Your task to perform on an android device: turn pop-ups on in chrome Image 0: 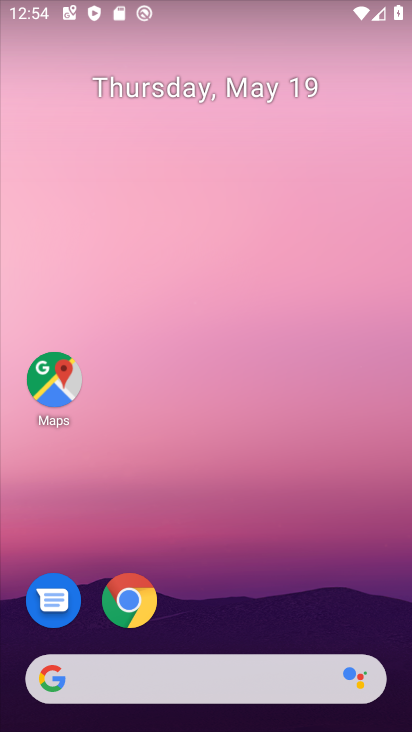
Step 0: click (126, 621)
Your task to perform on an android device: turn pop-ups on in chrome Image 1: 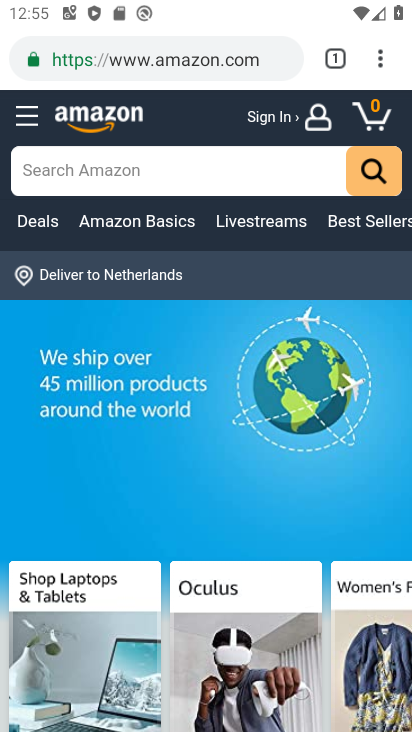
Step 1: click (378, 83)
Your task to perform on an android device: turn pop-ups on in chrome Image 2: 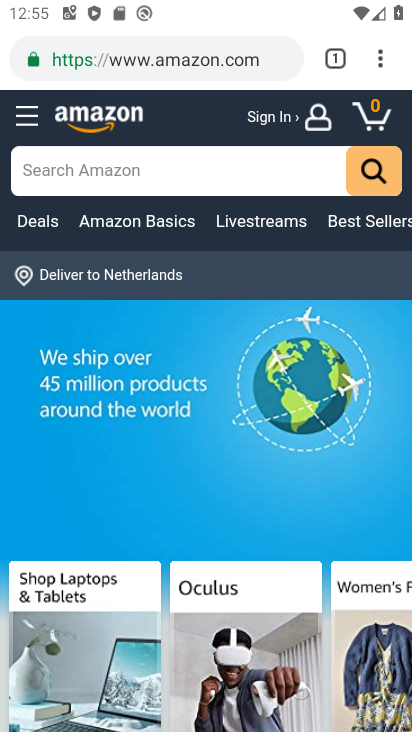
Step 2: click (382, 61)
Your task to perform on an android device: turn pop-ups on in chrome Image 3: 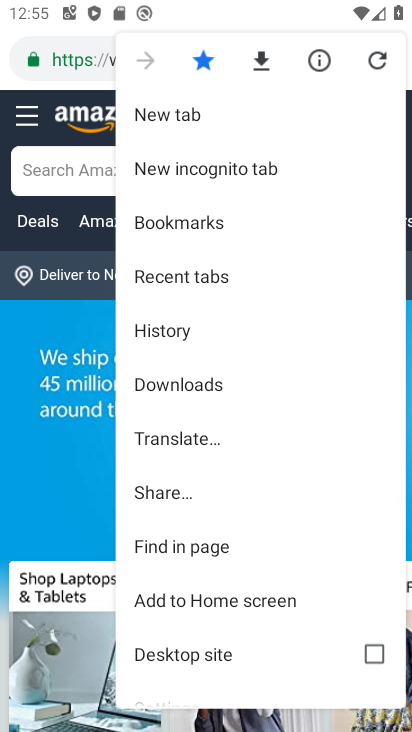
Step 3: drag from (191, 534) to (207, 294)
Your task to perform on an android device: turn pop-ups on in chrome Image 4: 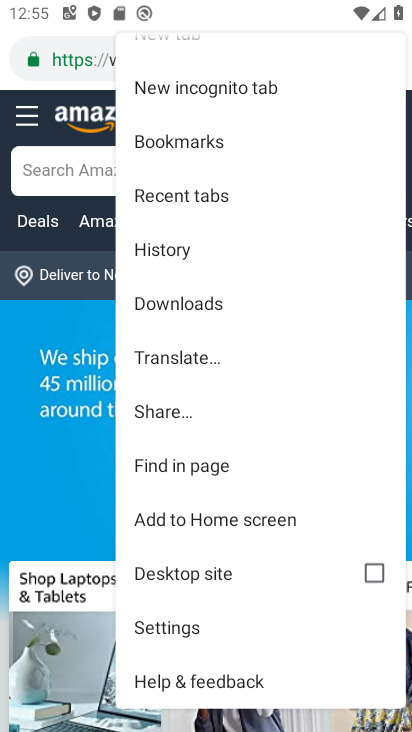
Step 4: click (205, 618)
Your task to perform on an android device: turn pop-ups on in chrome Image 5: 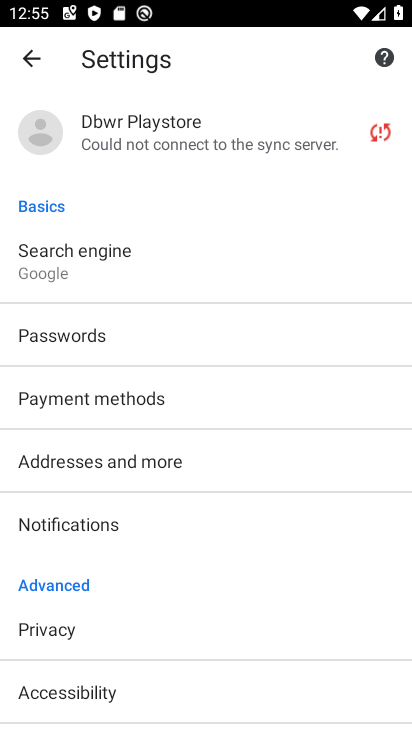
Step 5: drag from (171, 566) to (214, 326)
Your task to perform on an android device: turn pop-ups on in chrome Image 6: 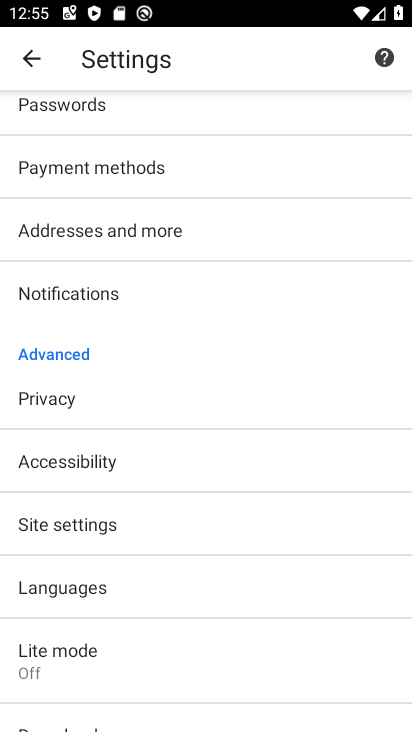
Step 6: click (195, 510)
Your task to perform on an android device: turn pop-ups on in chrome Image 7: 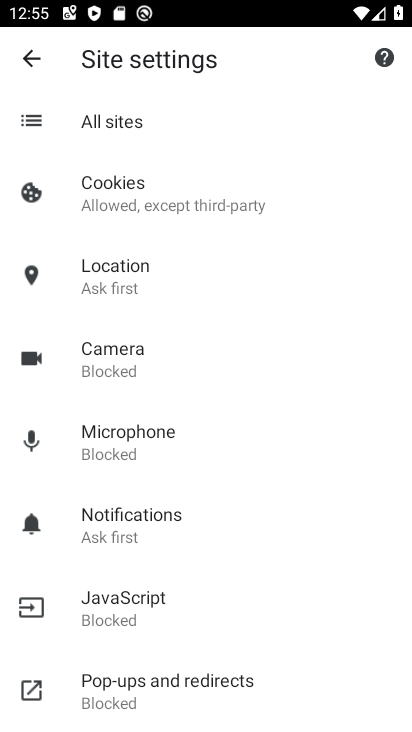
Step 7: click (164, 606)
Your task to perform on an android device: turn pop-ups on in chrome Image 8: 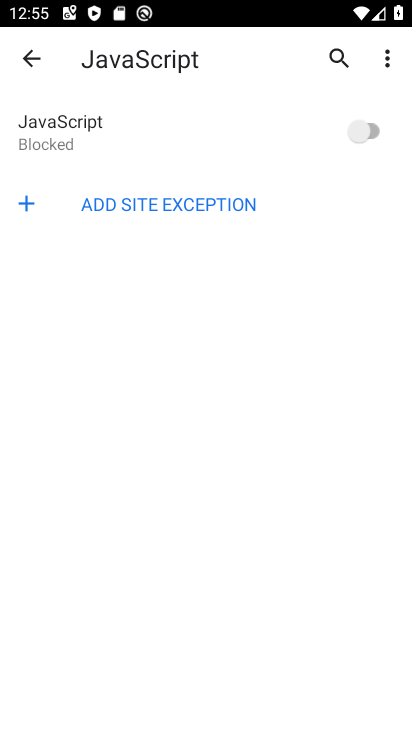
Step 8: click (42, 77)
Your task to perform on an android device: turn pop-ups on in chrome Image 9: 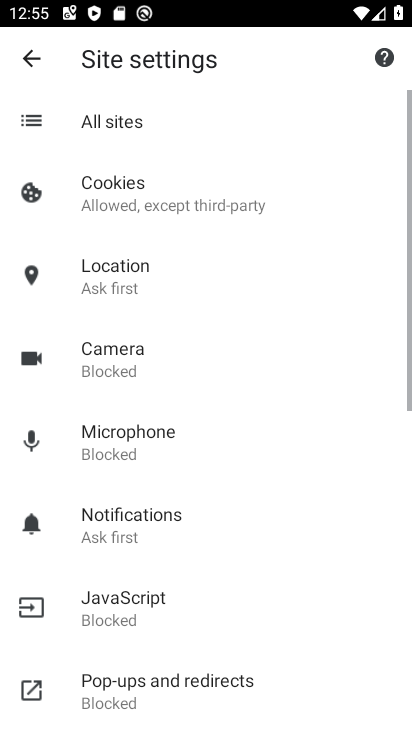
Step 9: click (173, 680)
Your task to perform on an android device: turn pop-ups on in chrome Image 10: 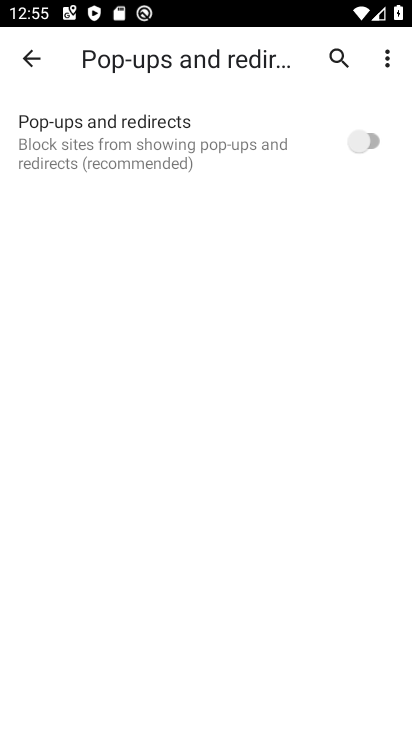
Step 10: click (329, 130)
Your task to perform on an android device: turn pop-ups on in chrome Image 11: 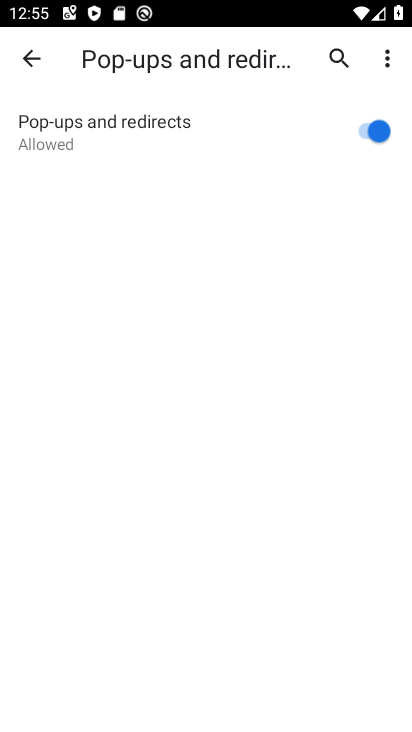
Step 11: task complete